Your task to perform on an android device: open chrome privacy settings Image 0: 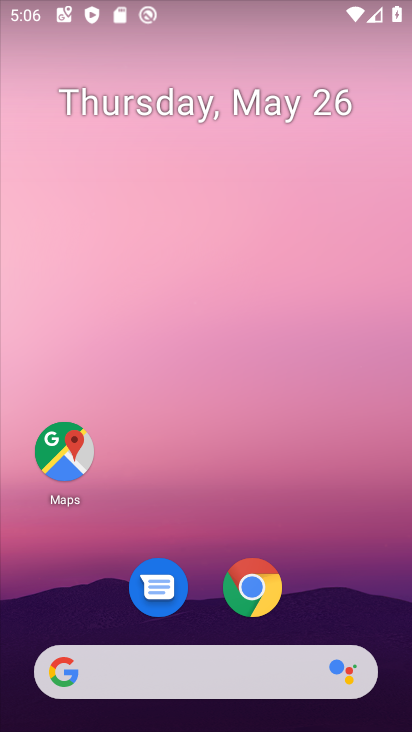
Step 0: click (252, 587)
Your task to perform on an android device: open chrome privacy settings Image 1: 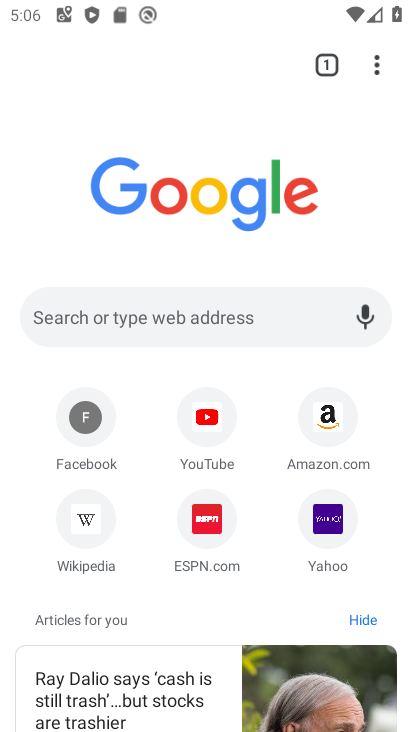
Step 1: click (377, 65)
Your task to perform on an android device: open chrome privacy settings Image 2: 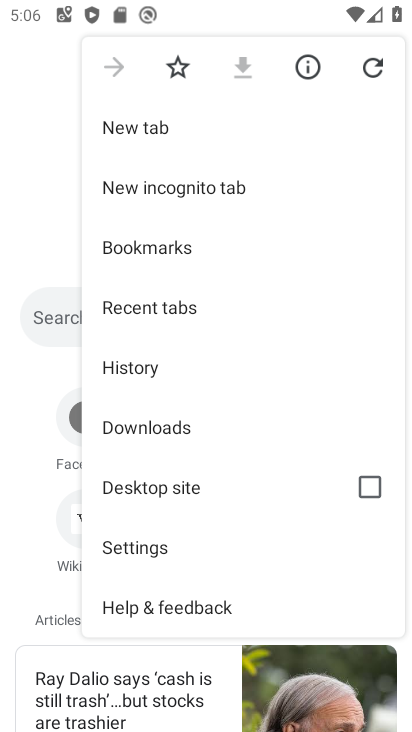
Step 2: click (151, 550)
Your task to perform on an android device: open chrome privacy settings Image 3: 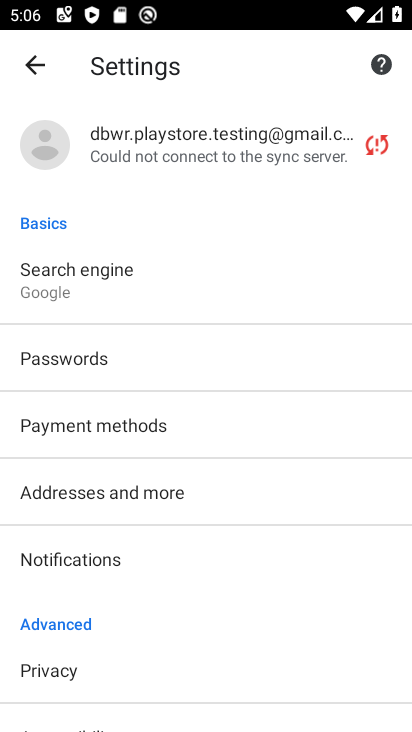
Step 3: click (47, 665)
Your task to perform on an android device: open chrome privacy settings Image 4: 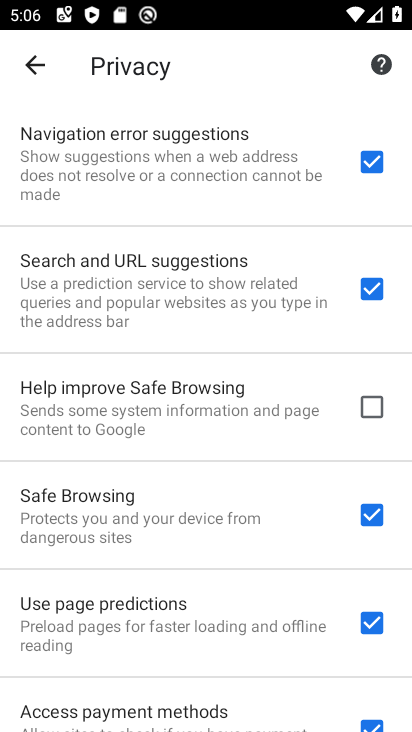
Step 4: task complete